Your task to perform on an android device: open a bookmark in the chrome app Image 0: 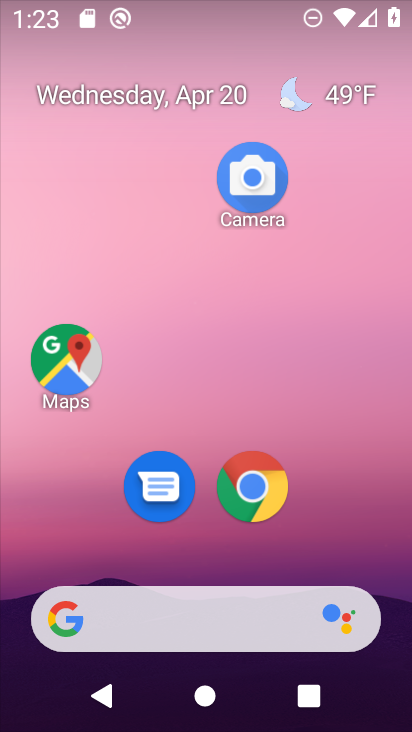
Step 0: drag from (238, 514) to (241, 200)
Your task to perform on an android device: open a bookmark in the chrome app Image 1: 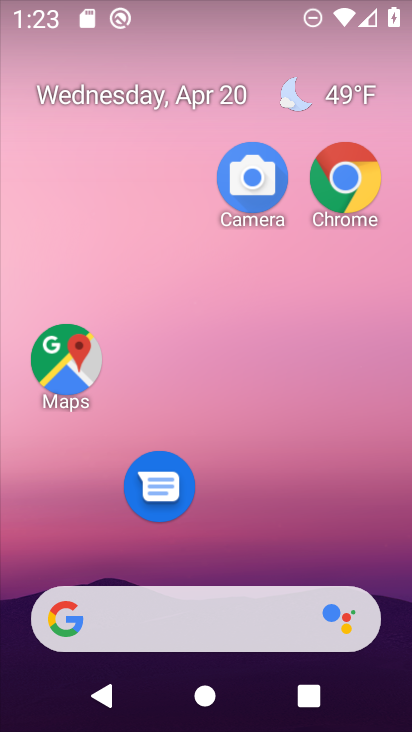
Step 1: drag from (263, 670) to (259, 82)
Your task to perform on an android device: open a bookmark in the chrome app Image 2: 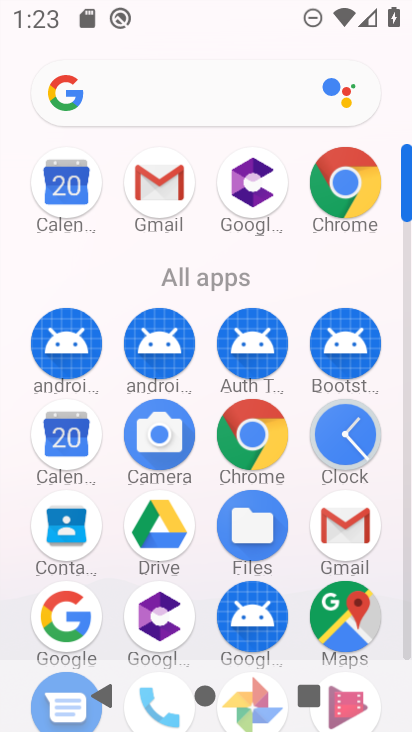
Step 2: click (343, 156)
Your task to perform on an android device: open a bookmark in the chrome app Image 3: 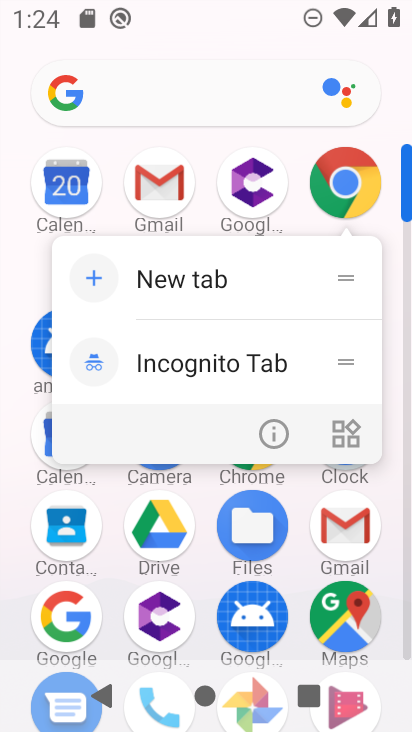
Step 3: click (342, 164)
Your task to perform on an android device: open a bookmark in the chrome app Image 4: 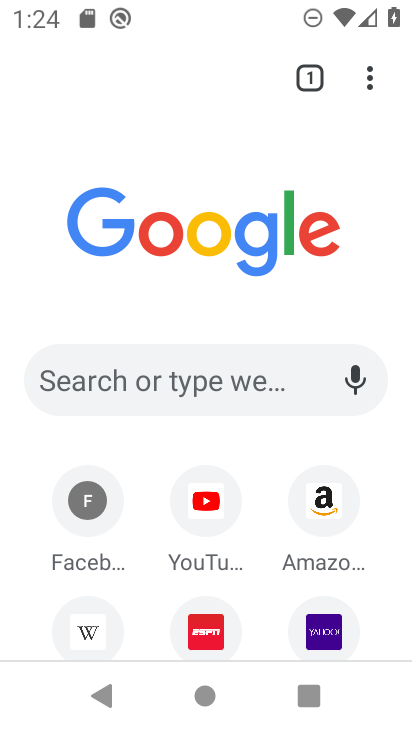
Step 4: click (365, 86)
Your task to perform on an android device: open a bookmark in the chrome app Image 5: 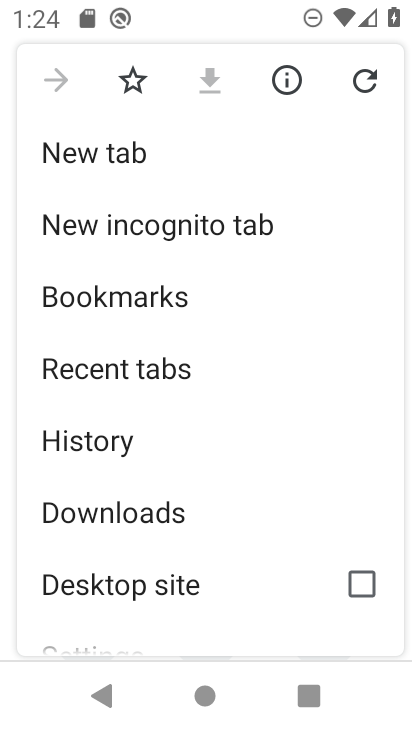
Step 5: click (115, 282)
Your task to perform on an android device: open a bookmark in the chrome app Image 6: 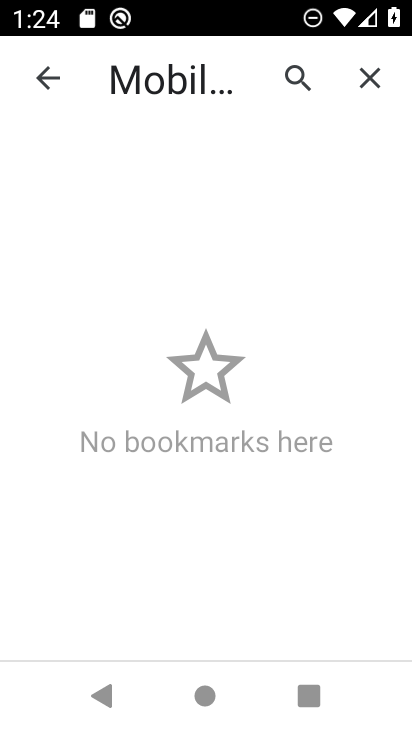
Step 6: task complete